Your task to perform on an android device: Go to Yahoo.com Image 0: 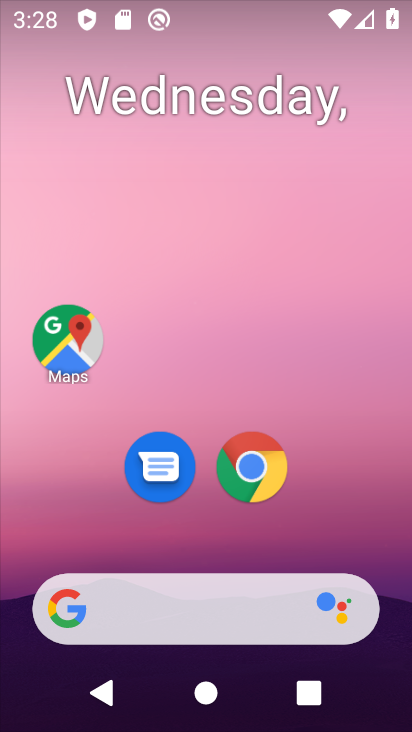
Step 0: click (264, 460)
Your task to perform on an android device: Go to Yahoo.com Image 1: 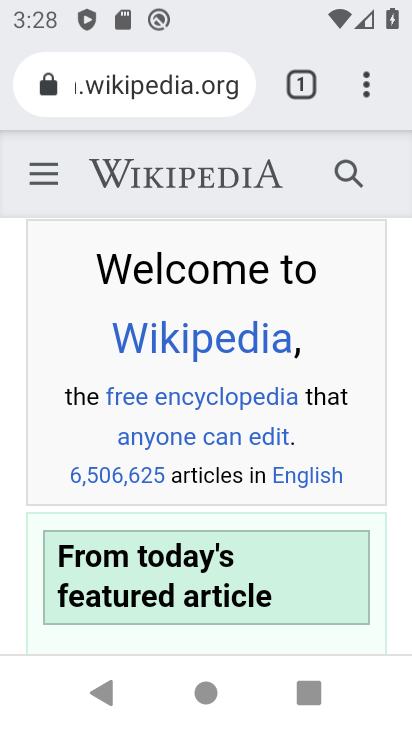
Step 1: click (316, 91)
Your task to perform on an android device: Go to Yahoo.com Image 2: 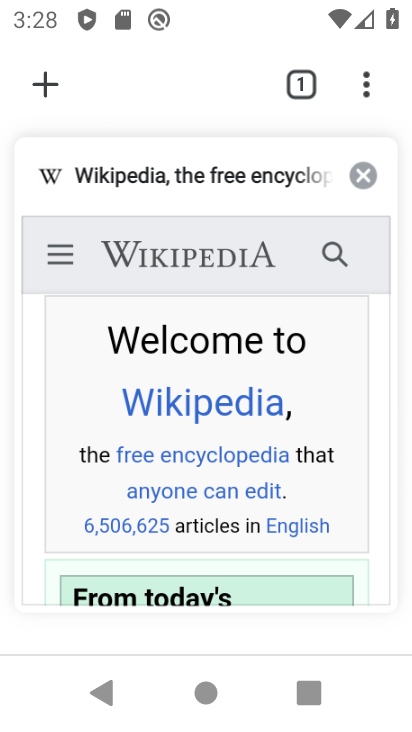
Step 2: click (37, 80)
Your task to perform on an android device: Go to Yahoo.com Image 3: 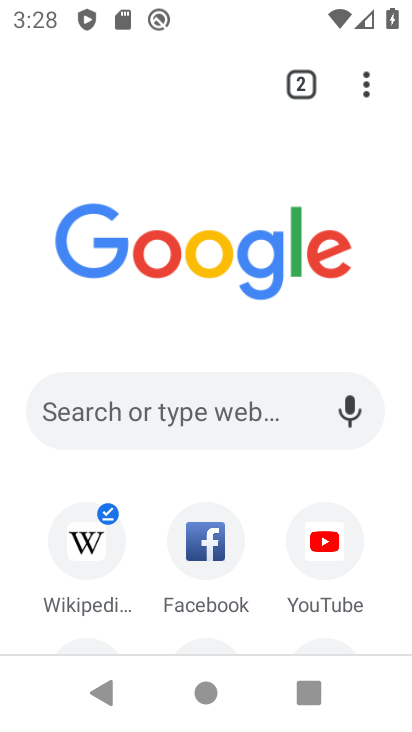
Step 3: drag from (274, 582) to (277, 216)
Your task to perform on an android device: Go to Yahoo.com Image 4: 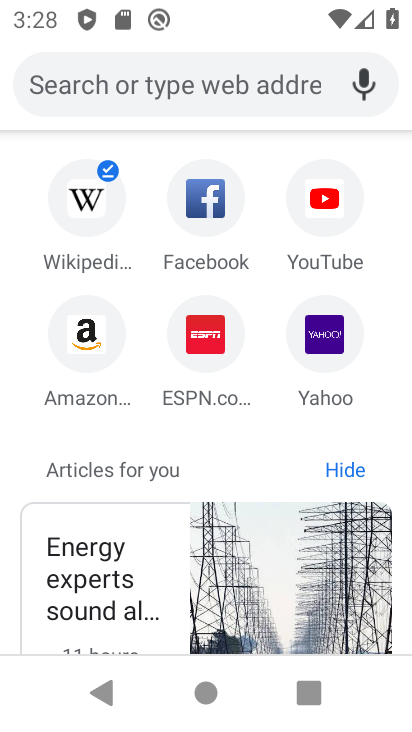
Step 4: click (325, 360)
Your task to perform on an android device: Go to Yahoo.com Image 5: 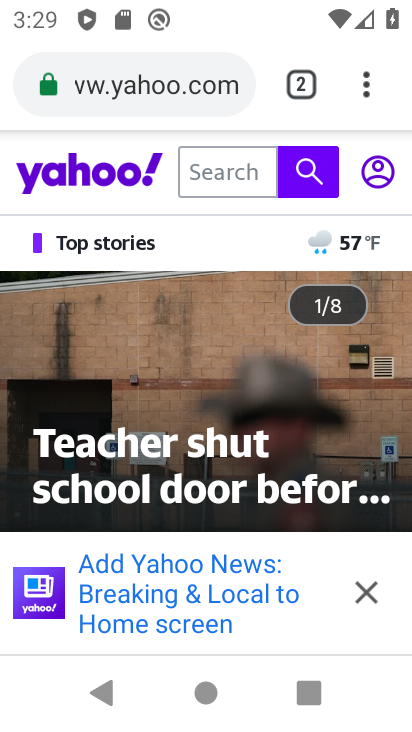
Step 5: task complete